Your task to perform on an android device: delete a single message in the gmail app Image 0: 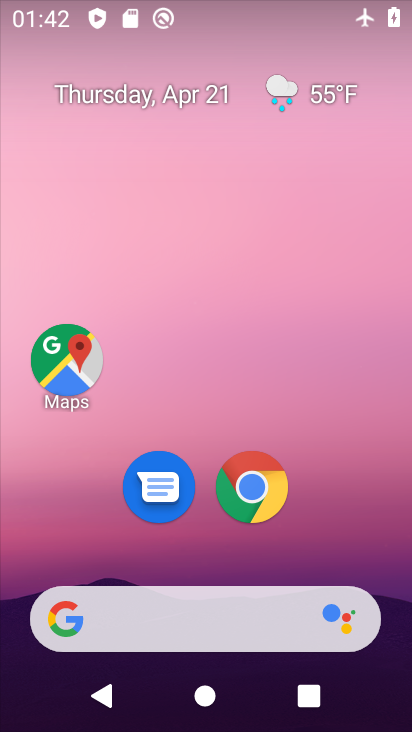
Step 0: drag from (355, 553) to (340, 73)
Your task to perform on an android device: delete a single message in the gmail app Image 1: 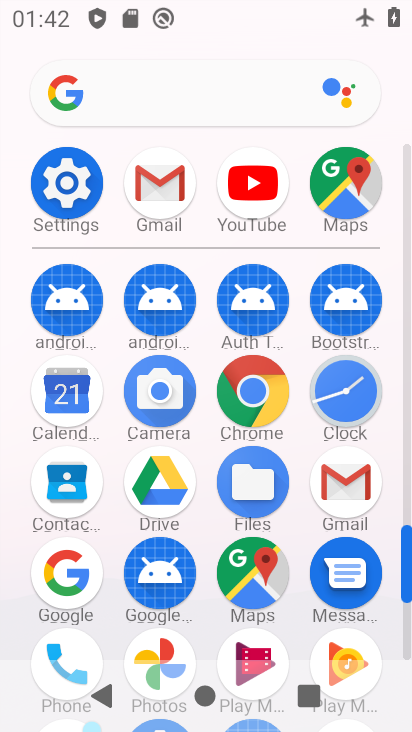
Step 1: click (152, 195)
Your task to perform on an android device: delete a single message in the gmail app Image 2: 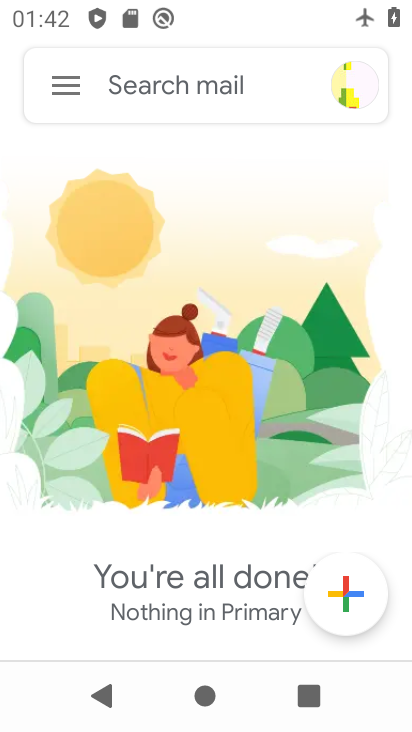
Step 2: click (74, 95)
Your task to perform on an android device: delete a single message in the gmail app Image 3: 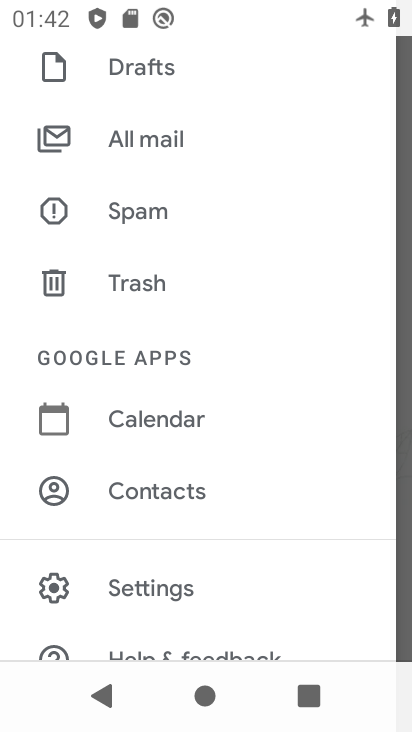
Step 3: click (74, 128)
Your task to perform on an android device: delete a single message in the gmail app Image 4: 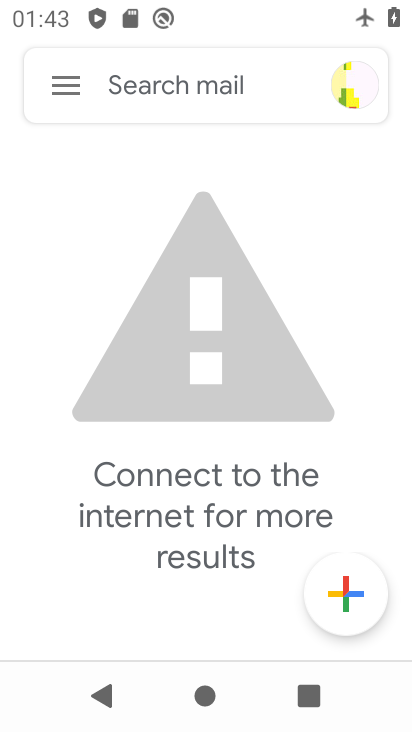
Step 4: task complete